Your task to perform on an android device: allow notifications from all sites in the chrome app Image 0: 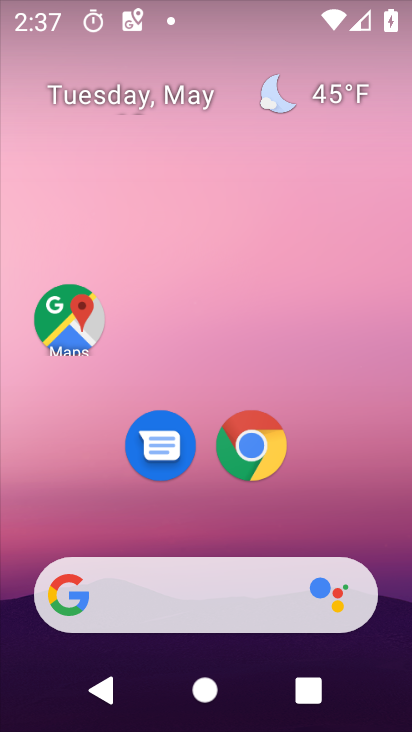
Step 0: click (250, 429)
Your task to perform on an android device: allow notifications from all sites in the chrome app Image 1: 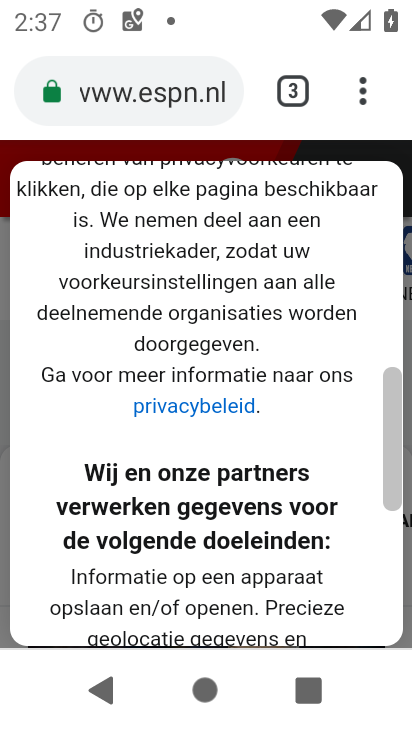
Step 1: drag from (360, 88) to (105, 461)
Your task to perform on an android device: allow notifications from all sites in the chrome app Image 2: 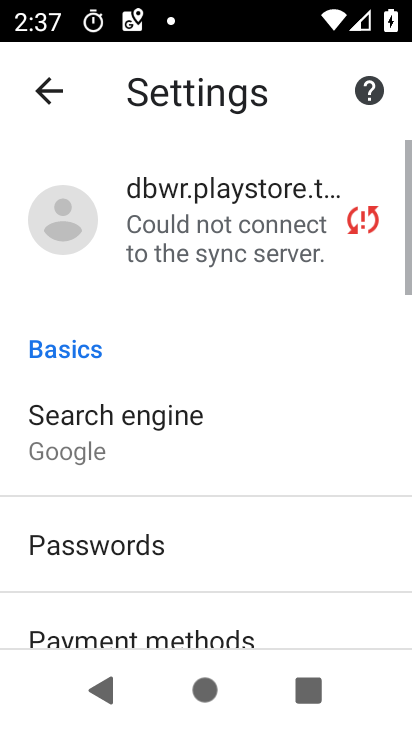
Step 2: drag from (106, 644) to (243, 190)
Your task to perform on an android device: allow notifications from all sites in the chrome app Image 3: 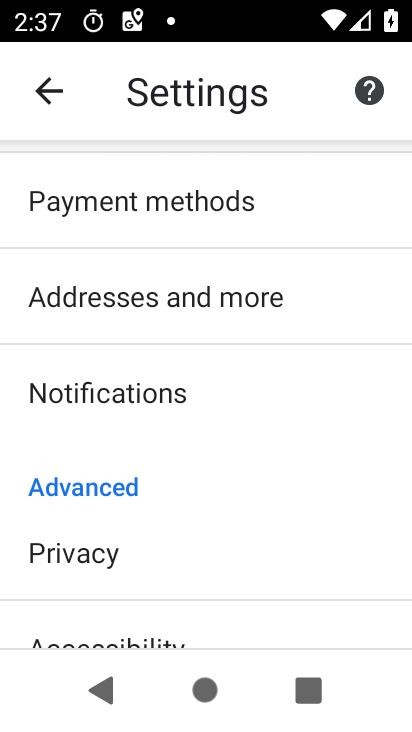
Step 3: click (114, 380)
Your task to perform on an android device: allow notifications from all sites in the chrome app Image 4: 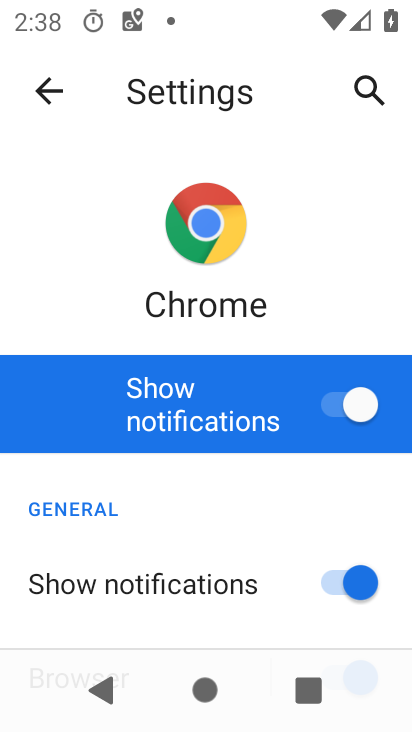
Step 4: task complete